Your task to perform on an android device: change the upload size in google photos Image 0: 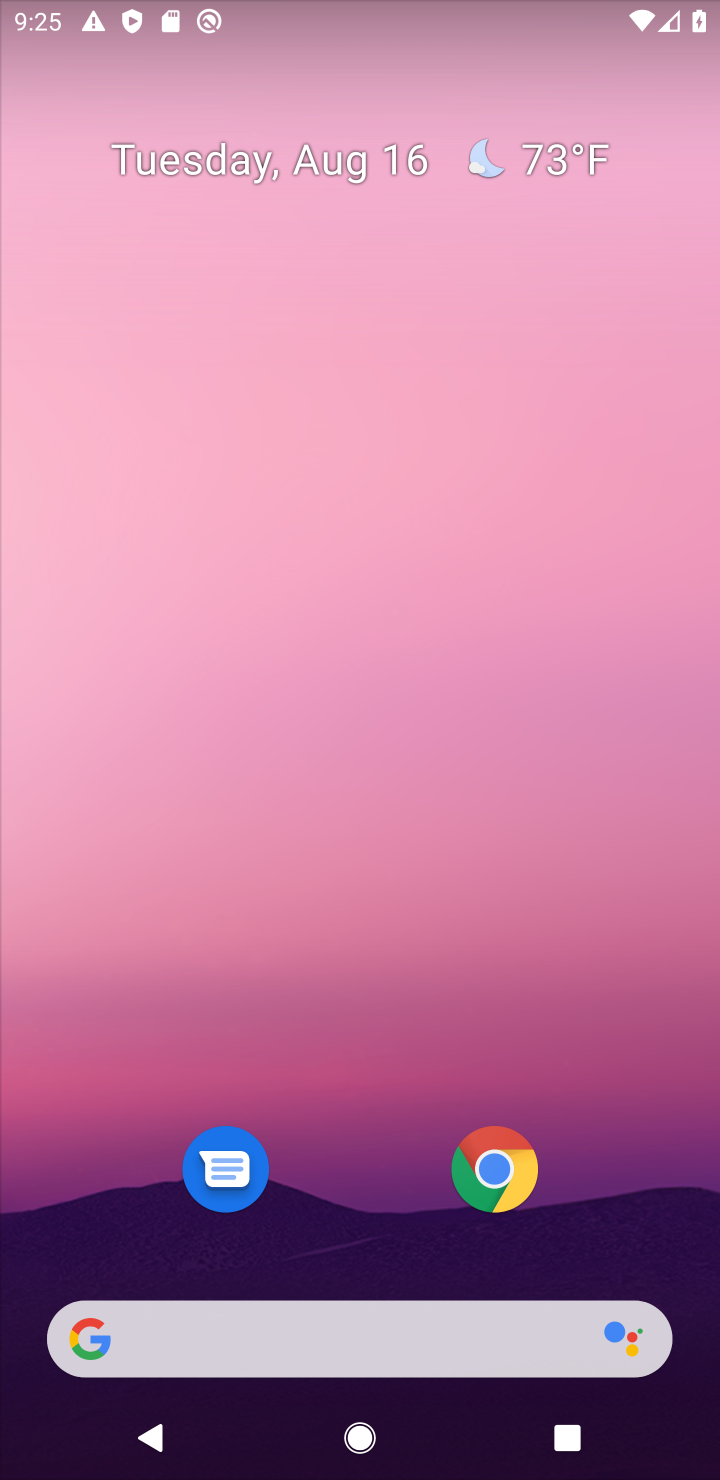
Step 0: drag from (296, 691) to (302, 247)
Your task to perform on an android device: change the upload size in google photos Image 1: 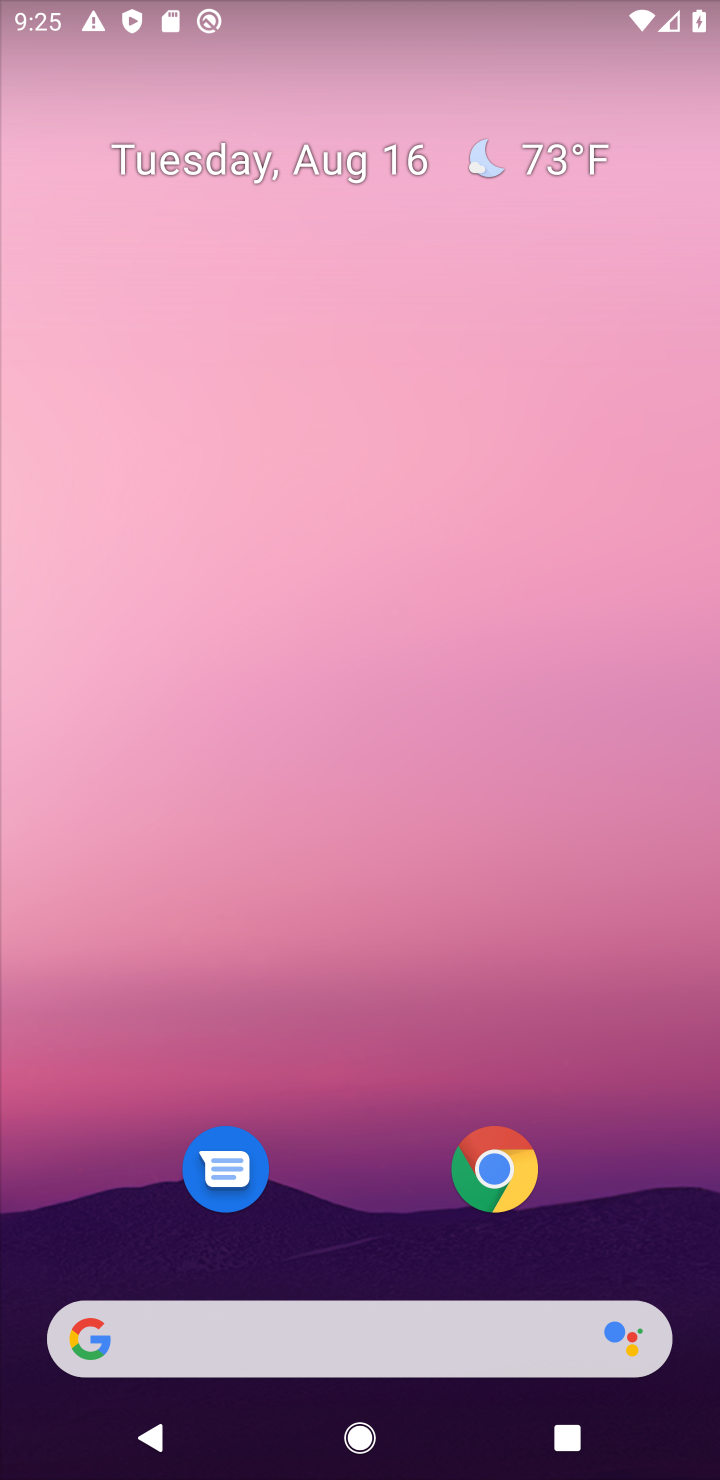
Step 1: drag from (349, 1246) to (399, 21)
Your task to perform on an android device: change the upload size in google photos Image 2: 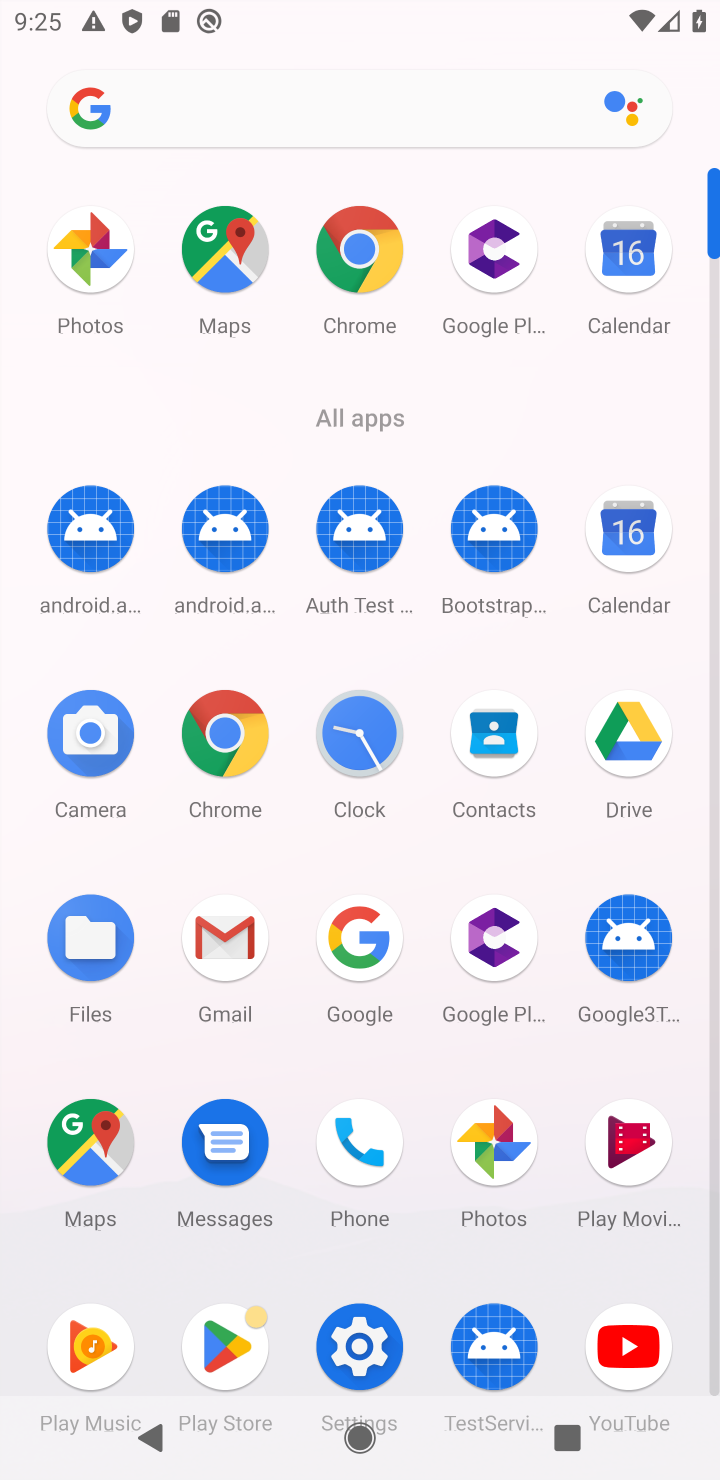
Step 2: click (487, 1135)
Your task to perform on an android device: change the upload size in google photos Image 3: 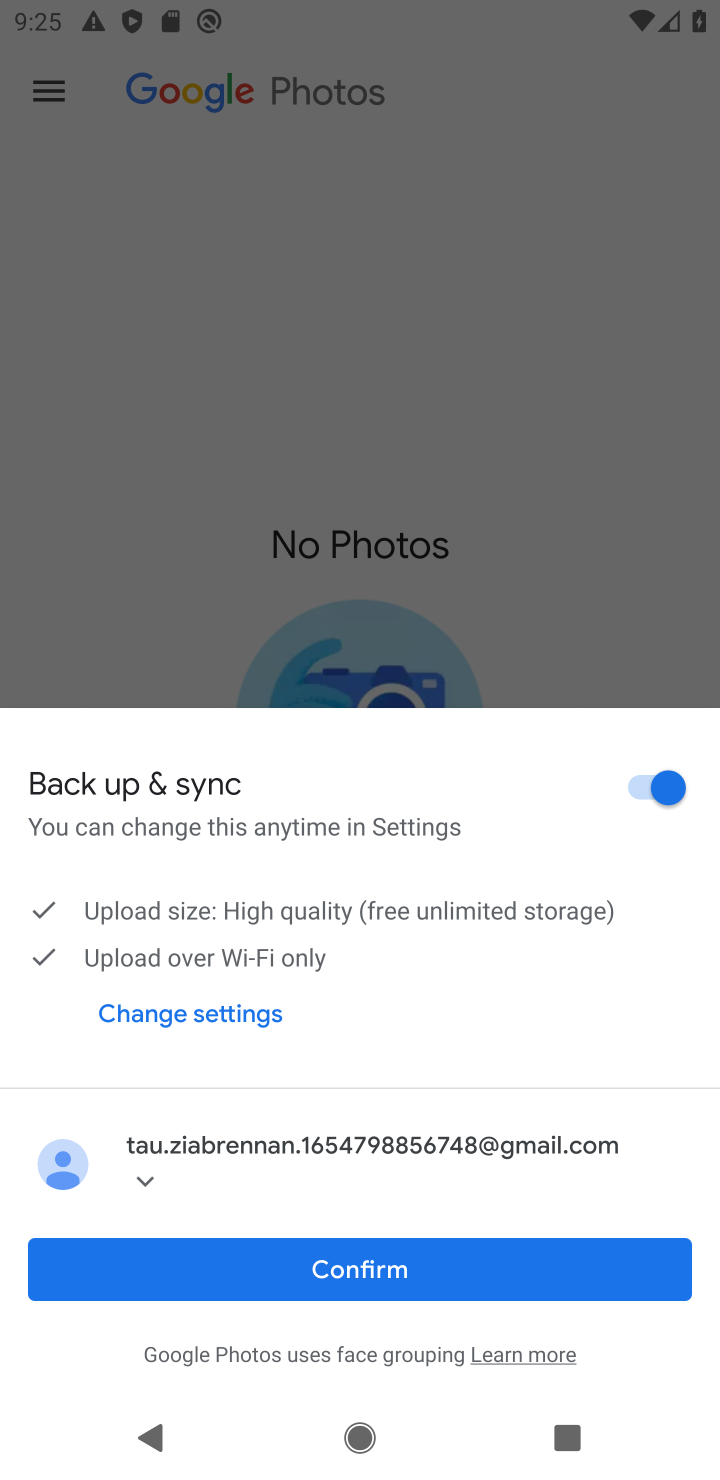
Step 3: click (371, 1288)
Your task to perform on an android device: change the upload size in google photos Image 4: 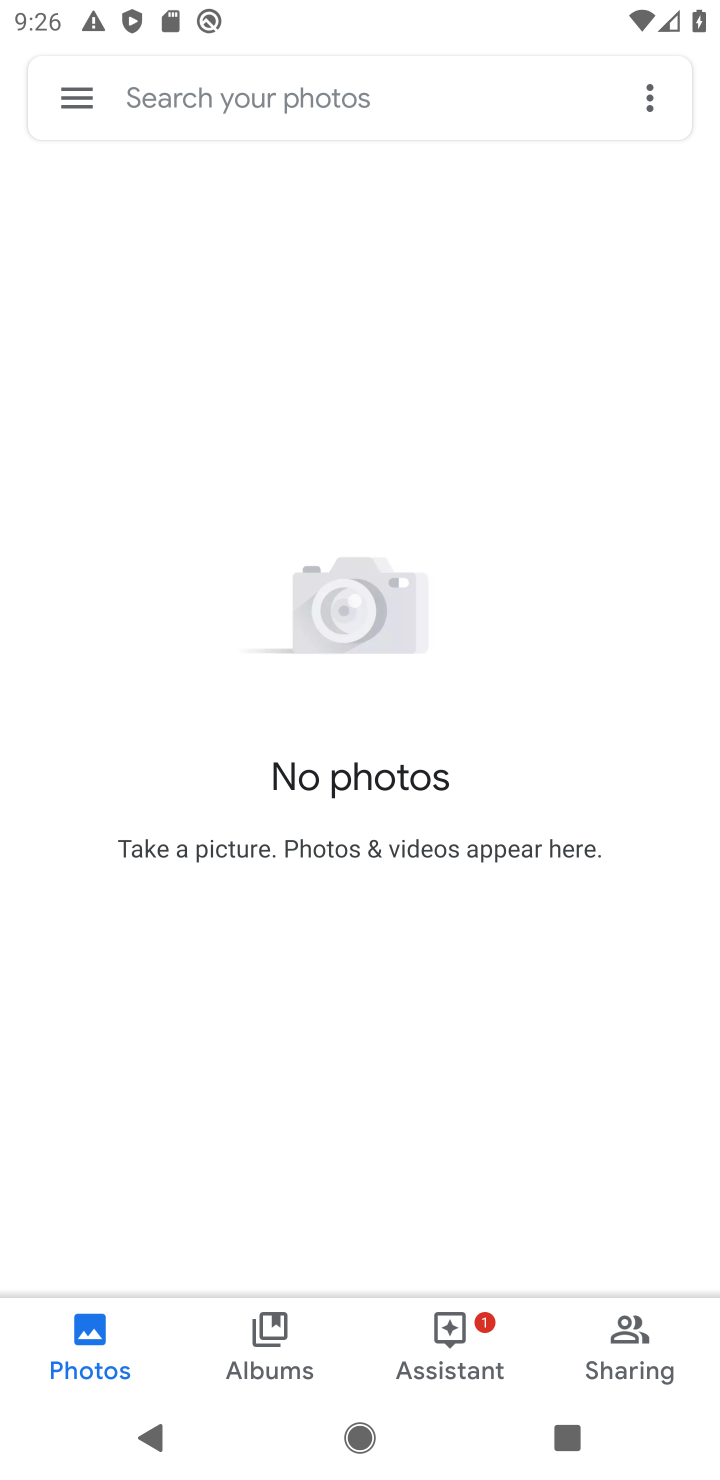
Step 4: click (69, 88)
Your task to perform on an android device: change the upload size in google photos Image 5: 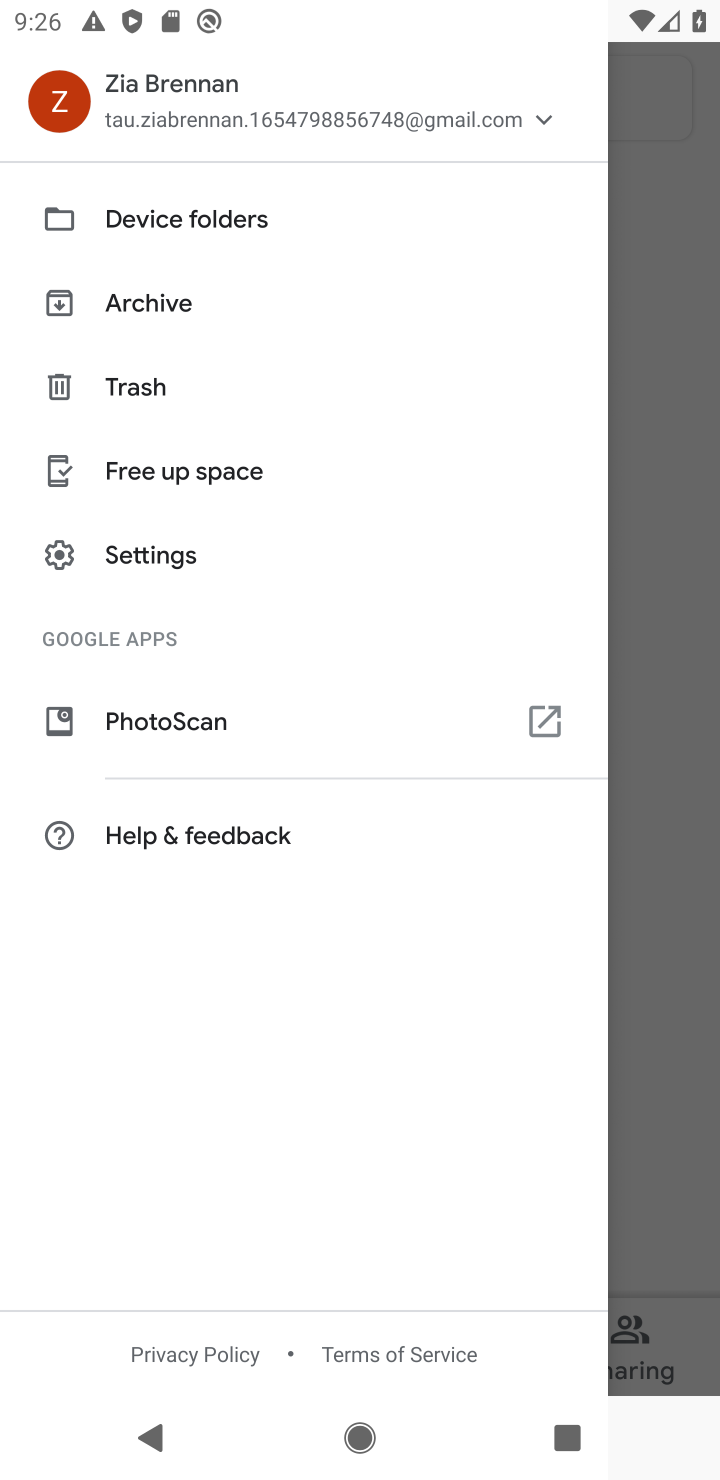
Step 5: click (135, 583)
Your task to perform on an android device: change the upload size in google photos Image 6: 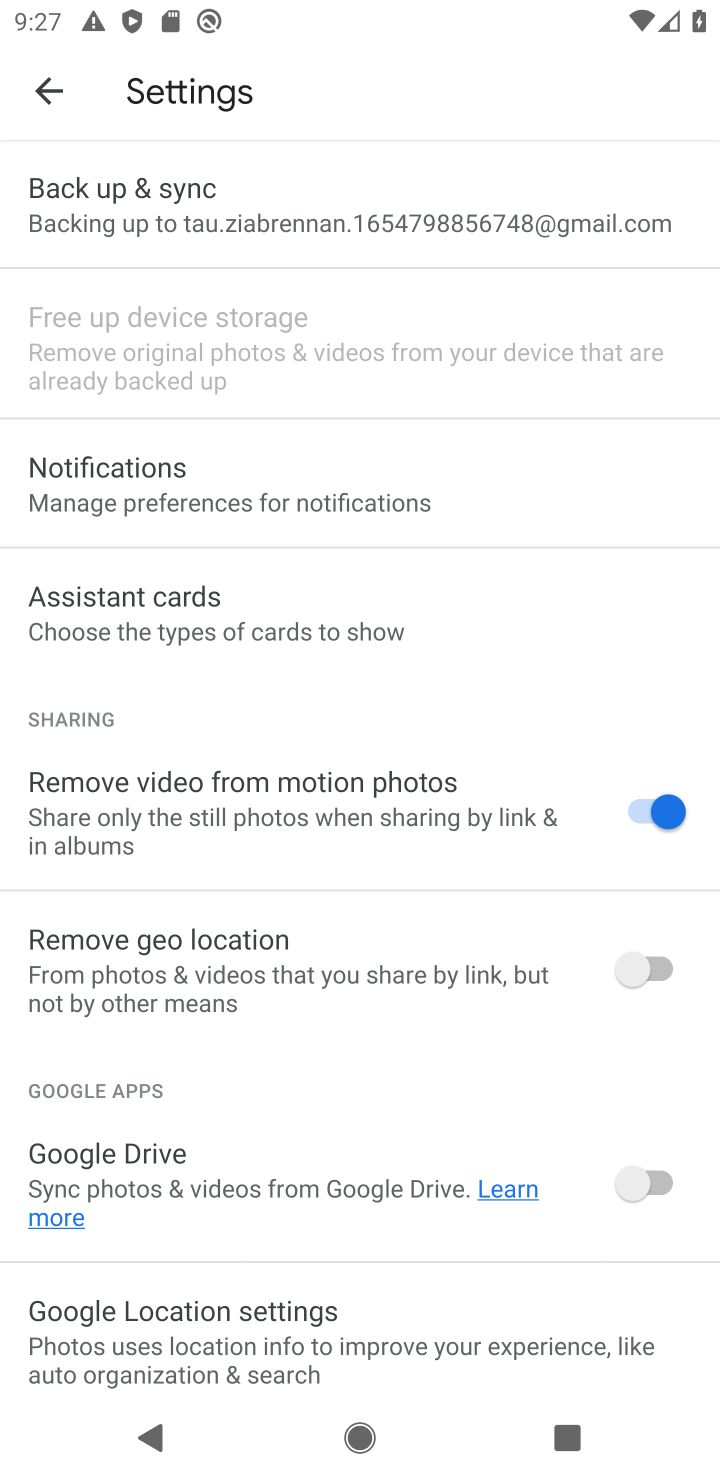
Step 6: click (161, 205)
Your task to perform on an android device: change the upload size in google photos Image 7: 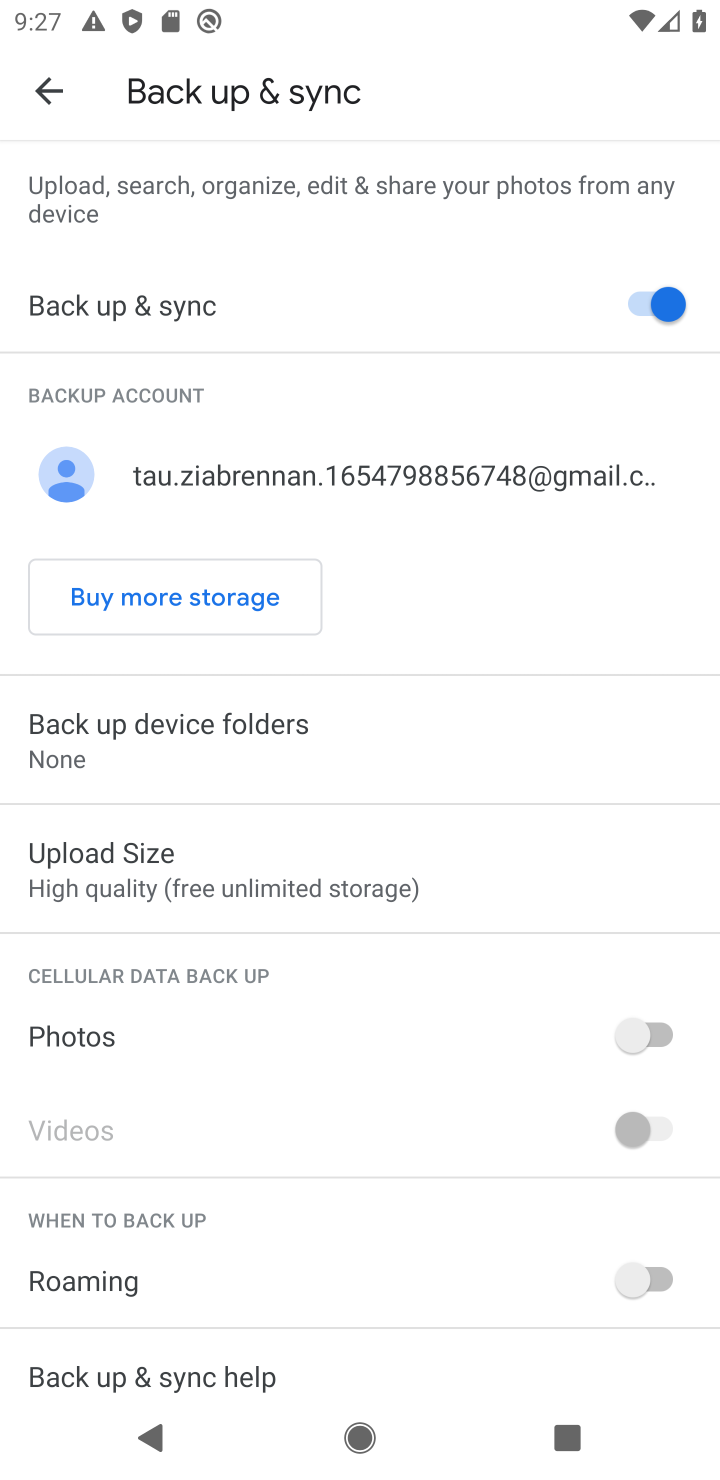
Step 7: click (147, 851)
Your task to perform on an android device: change the upload size in google photos Image 8: 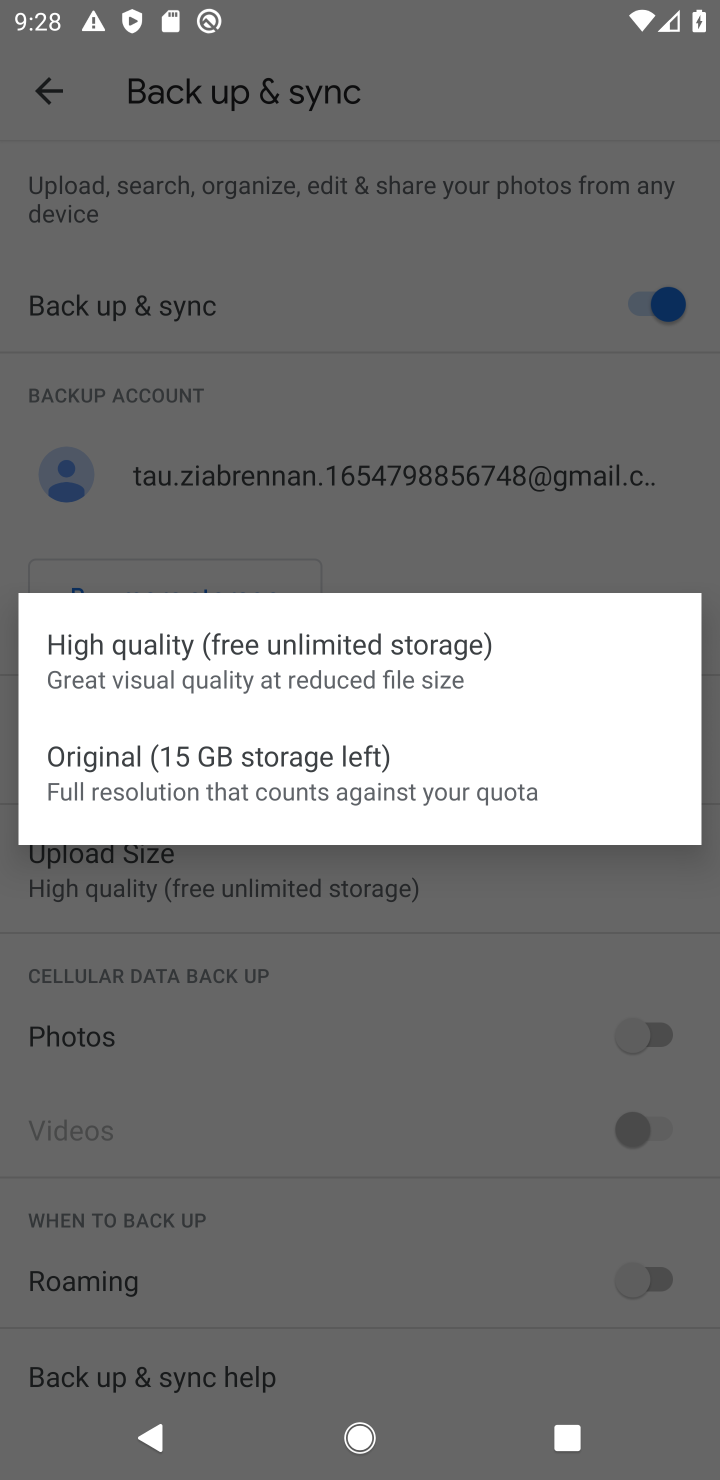
Step 8: click (223, 758)
Your task to perform on an android device: change the upload size in google photos Image 9: 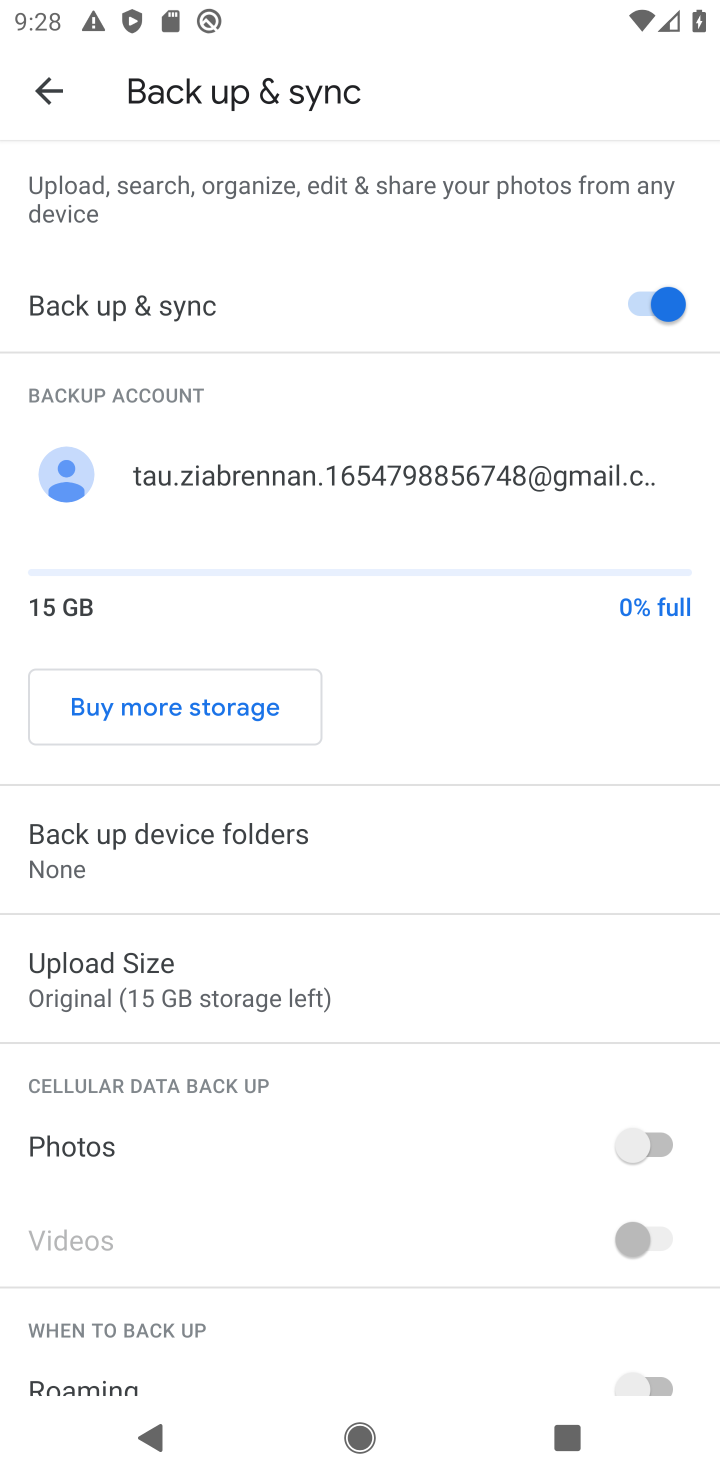
Step 9: task complete